Your task to perform on an android device: empty trash in the gmail app Image 0: 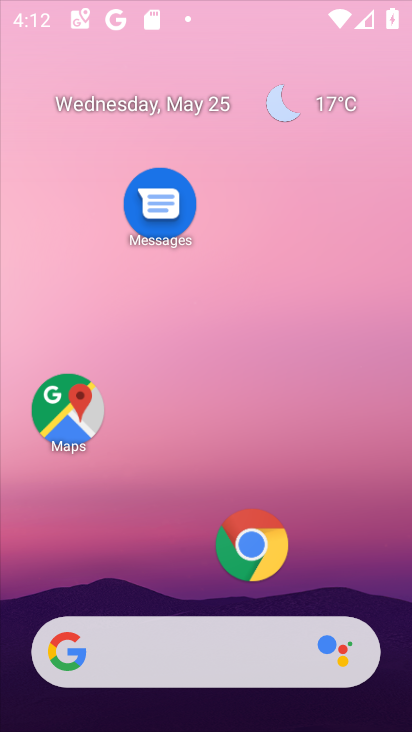
Step 0: click (277, 234)
Your task to perform on an android device: empty trash in the gmail app Image 1: 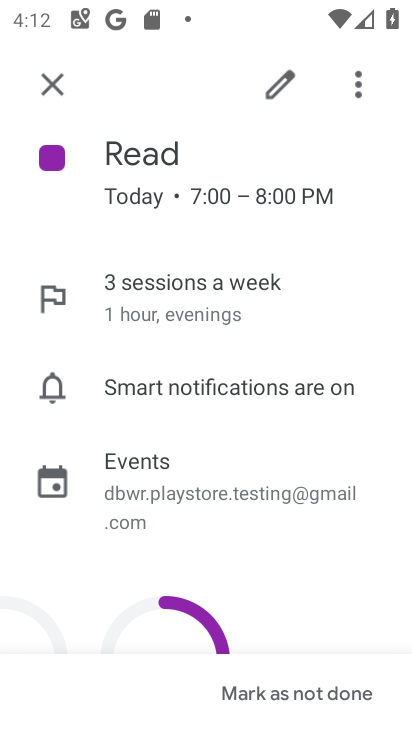
Step 1: press home button
Your task to perform on an android device: empty trash in the gmail app Image 2: 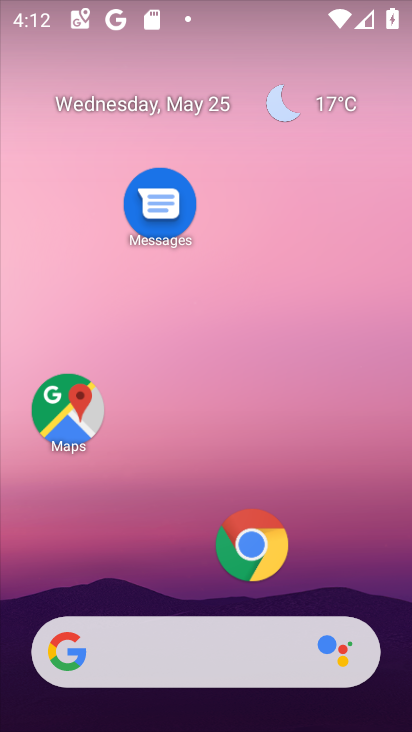
Step 2: drag from (170, 517) to (207, 9)
Your task to perform on an android device: empty trash in the gmail app Image 3: 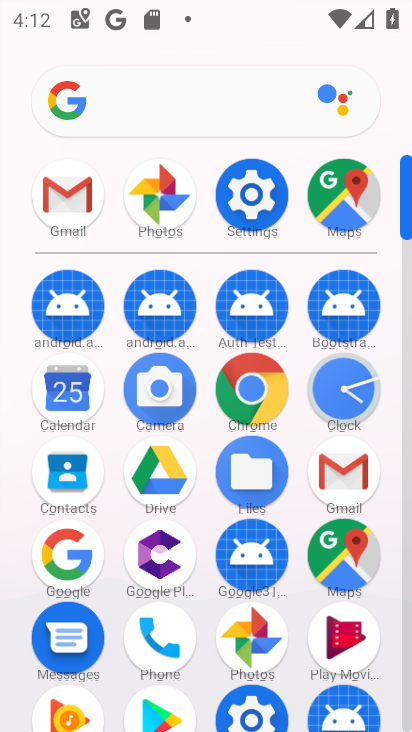
Step 3: click (253, 634)
Your task to perform on an android device: empty trash in the gmail app Image 4: 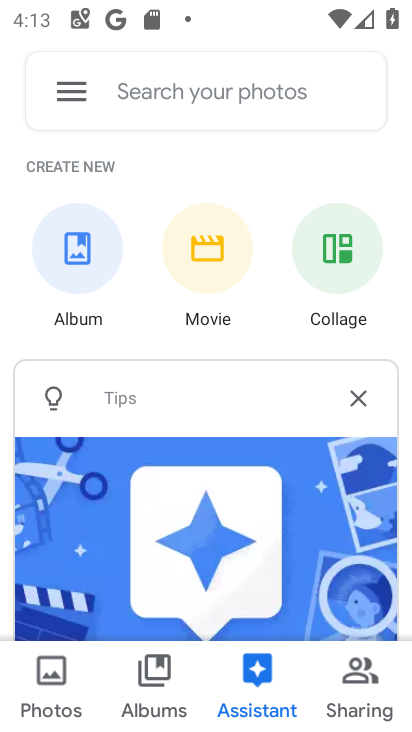
Step 4: press home button
Your task to perform on an android device: empty trash in the gmail app Image 5: 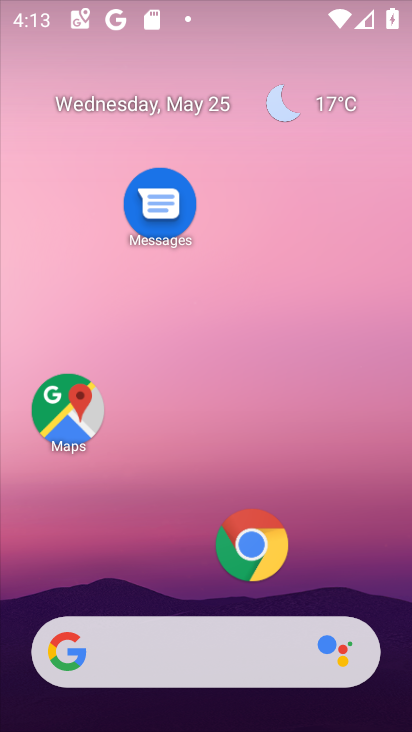
Step 5: drag from (278, 455) to (268, 47)
Your task to perform on an android device: empty trash in the gmail app Image 6: 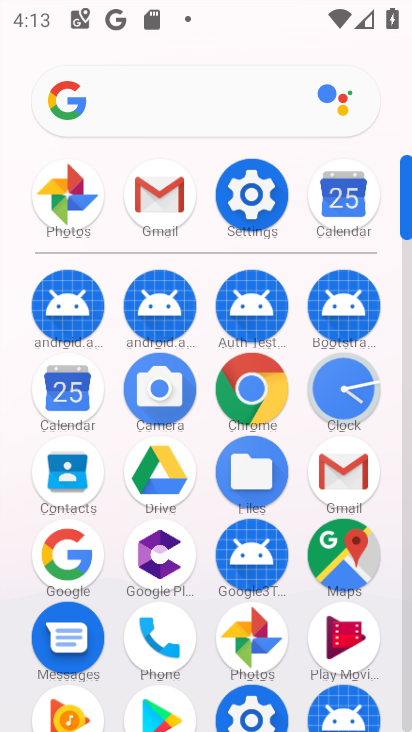
Step 6: click (154, 206)
Your task to perform on an android device: empty trash in the gmail app Image 7: 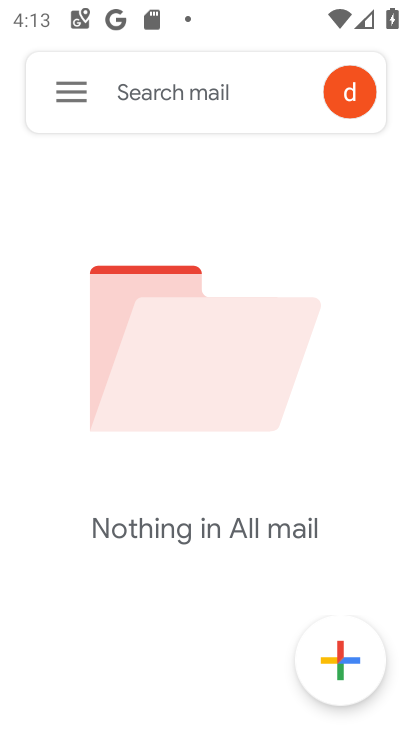
Step 7: click (71, 90)
Your task to perform on an android device: empty trash in the gmail app Image 8: 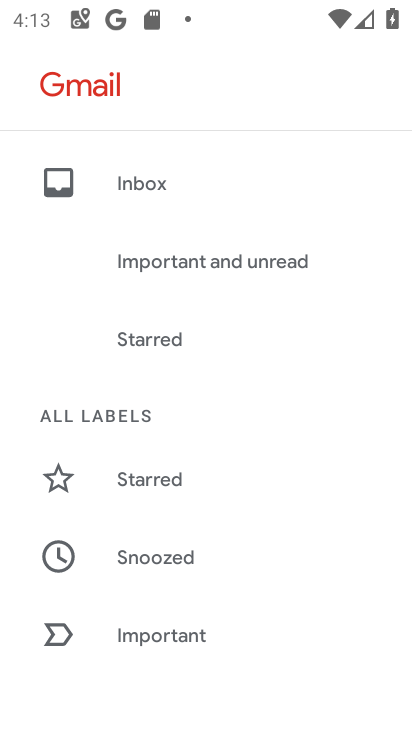
Step 8: drag from (261, 563) to (277, 166)
Your task to perform on an android device: empty trash in the gmail app Image 9: 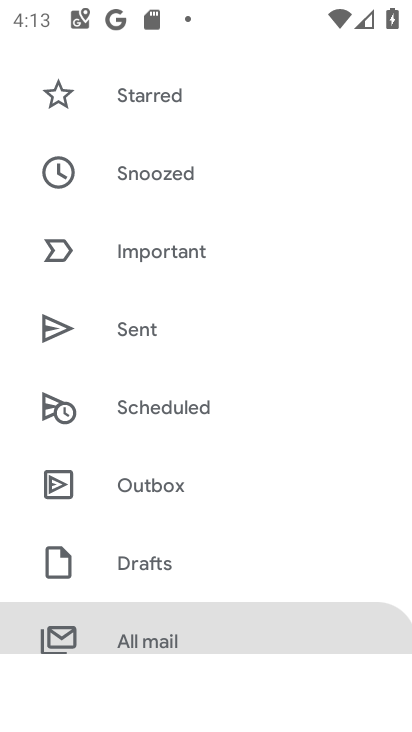
Step 9: drag from (184, 534) to (205, 66)
Your task to perform on an android device: empty trash in the gmail app Image 10: 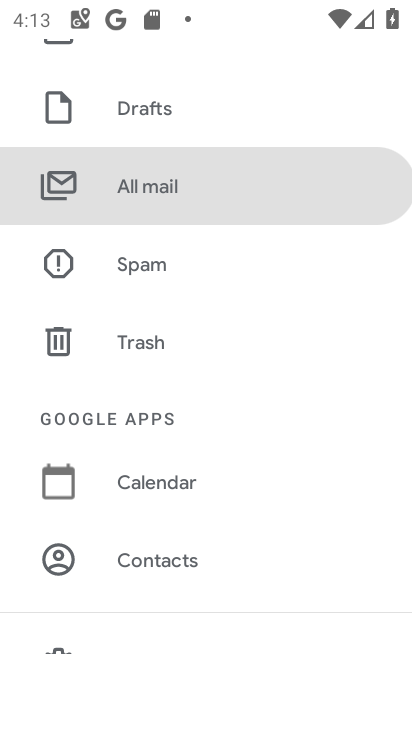
Step 10: click (150, 344)
Your task to perform on an android device: empty trash in the gmail app Image 11: 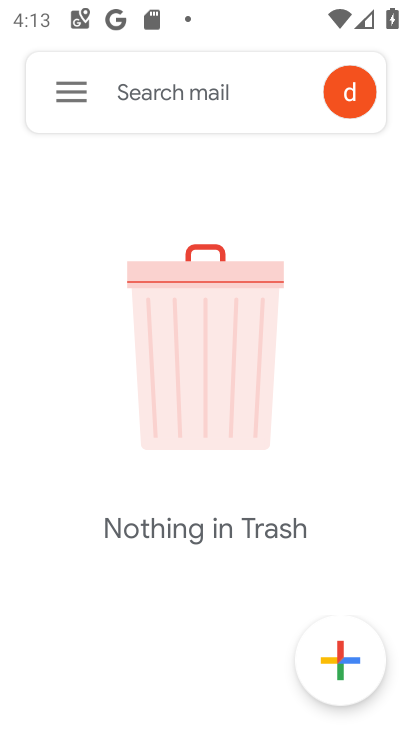
Step 11: task complete